Your task to perform on an android device: show emergency info Image 0: 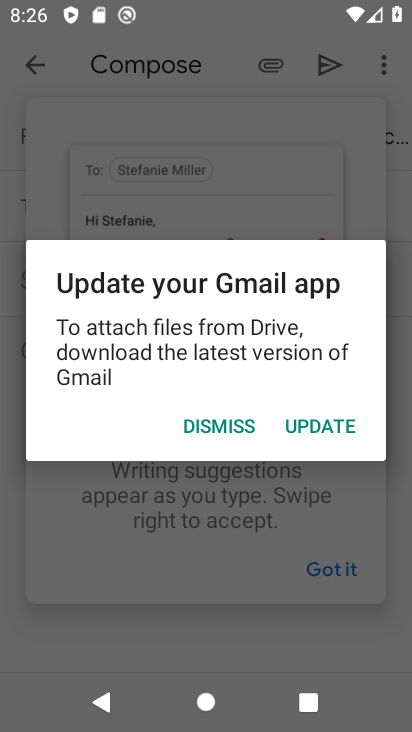
Step 0: press home button
Your task to perform on an android device: show emergency info Image 1: 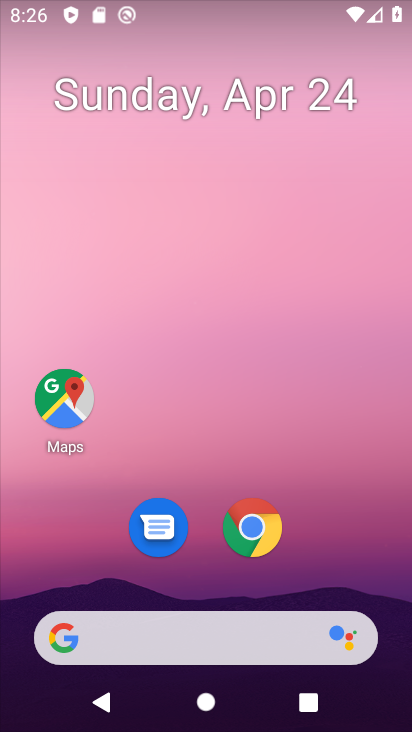
Step 1: drag from (351, 581) to (232, 86)
Your task to perform on an android device: show emergency info Image 2: 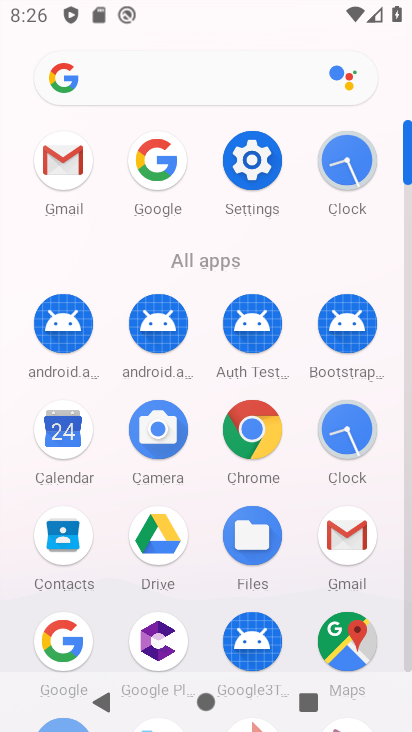
Step 2: click (248, 150)
Your task to perform on an android device: show emergency info Image 3: 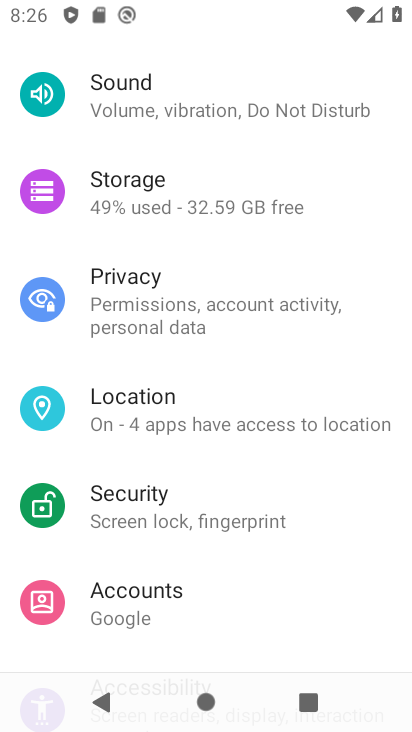
Step 3: drag from (281, 540) to (214, 241)
Your task to perform on an android device: show emergency info Image 4: 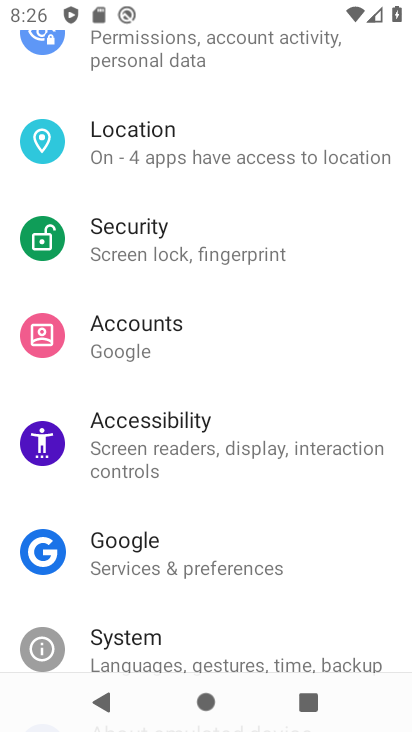
Step 4: drag from (263, 614) to (245, 214)
Your task to perform on an android device: show emergency info Image 5: 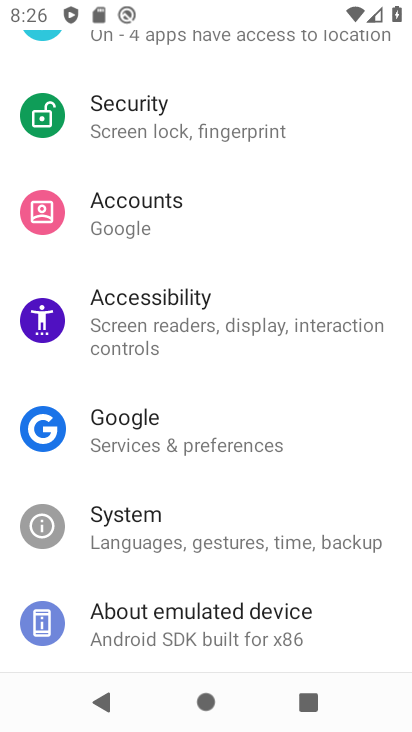
Step 5: click (211, 629)
Your task to perform on an android device: show emergency info Image 6: 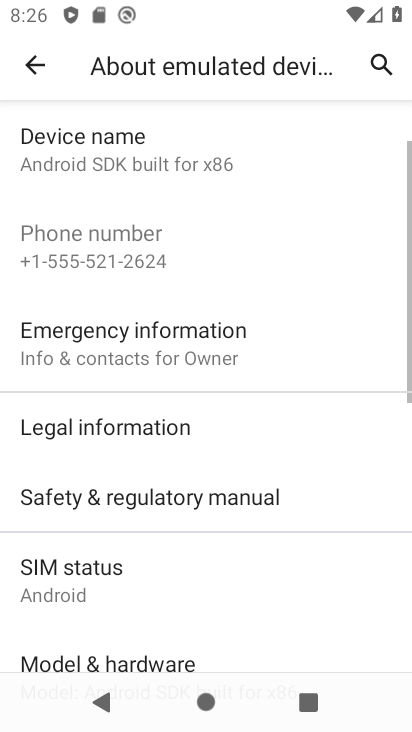
Step 6: click (106, 342)
Your task to perform on an android device: show emergency info Image 7: 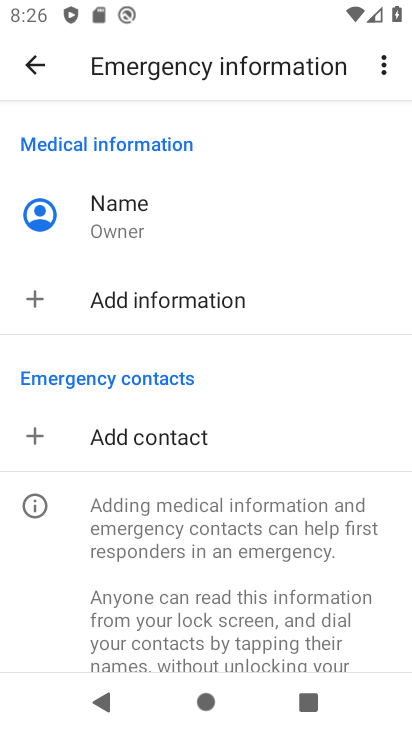
Step 7: task complete